Your task to perform on an android device: turn on javascript in the chrome app Image 0: 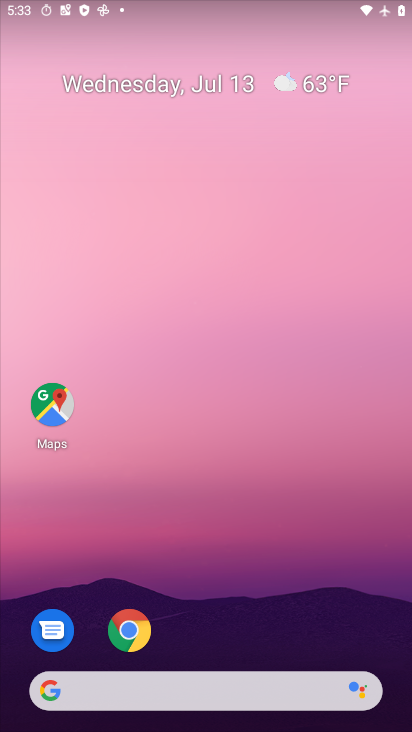
Step 0: press home button
Your task to perform on an android device: turn on javascript in the chrome app Image 1: 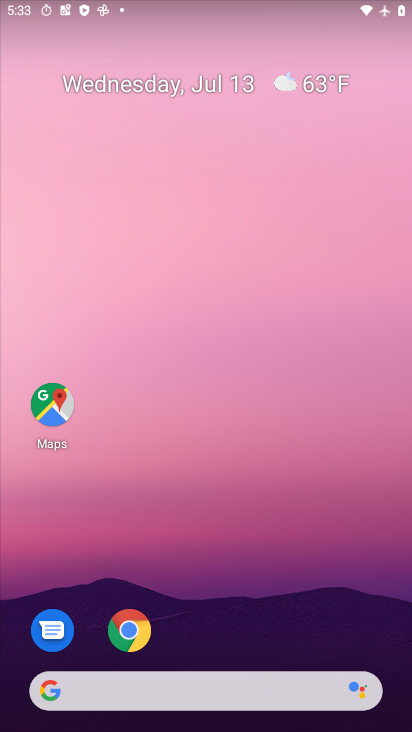
Step 1: drag from (232, 622) to (203, 164)
Your task to perform on an android device: turn on javascript in the chrome app Image 2: 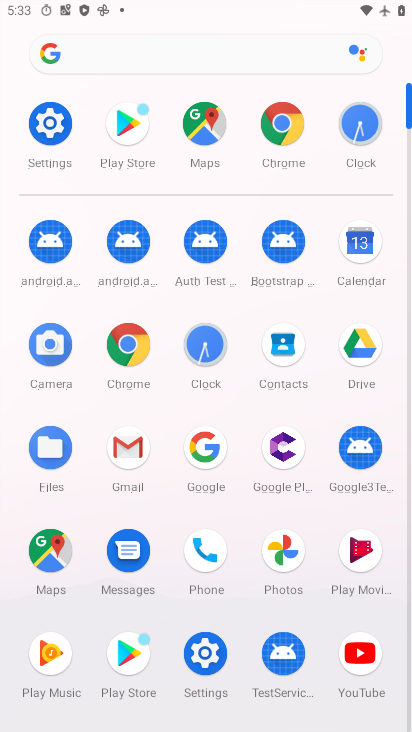
Step 2: click (284, 137)
Your task to perform on an android device: turn on javascript in the chrome app Image 3: 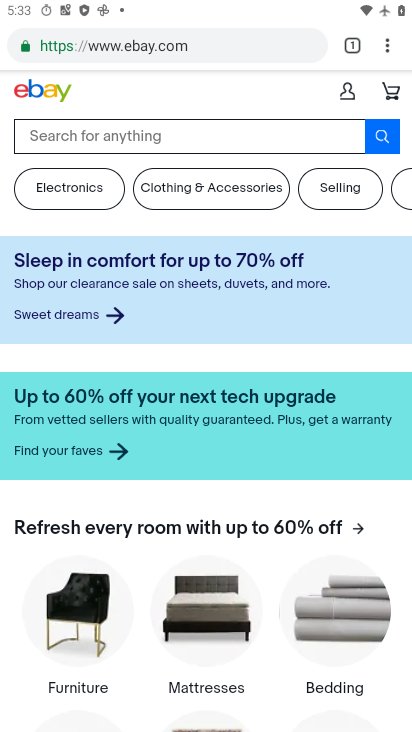
Step 3: drag from (389, 56) to (225, 602)
Your task to perform on an android device: turn on javascript in the chrome app Image 4: 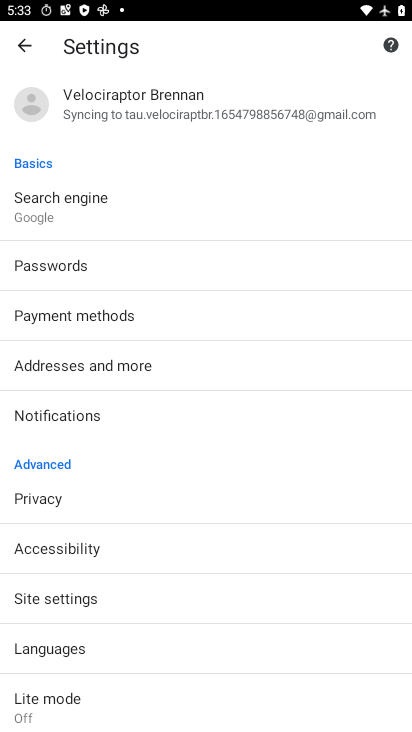
Step 4: click (57, 601)
Your task to perform on an android device: turn on javascript in the chrome app Image 5: 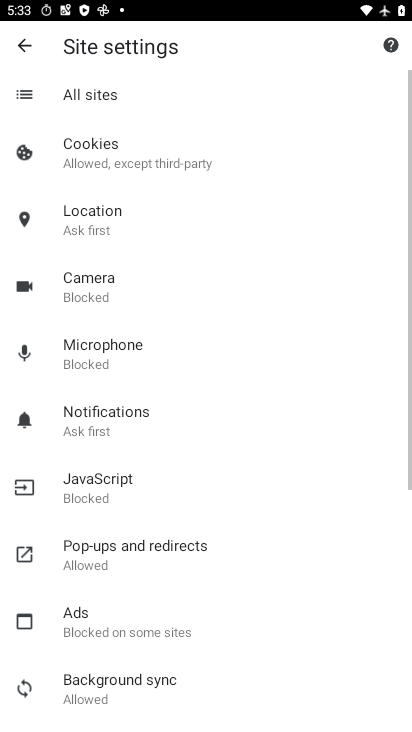
Step 5: click (89, 482)
Your task to perform on an android device: turn on javascript in the chrome app Image 6: 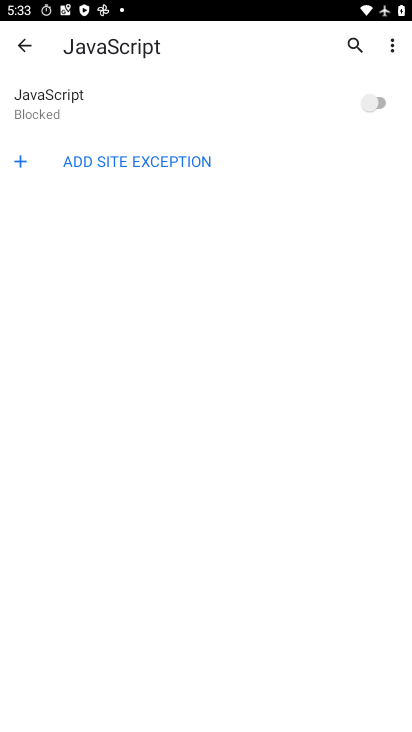
Step 6: click (374, 95)
Your task to perform on an android device: turn on javascript in the chrome app Image 7: 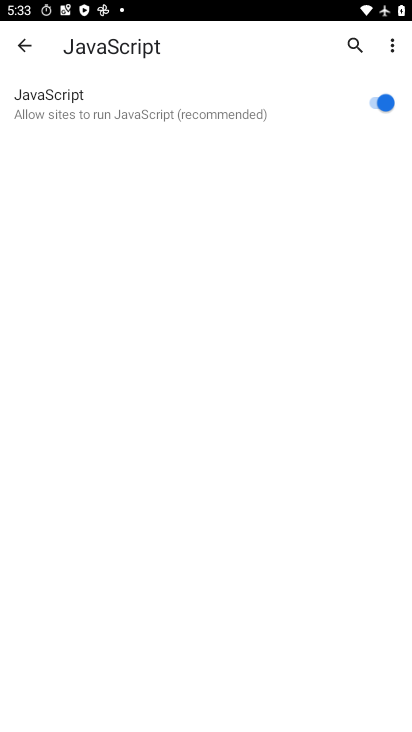
Step 7: task complete